Your task to perform on an android device: turn on the 12-hour format for clock Image 0: 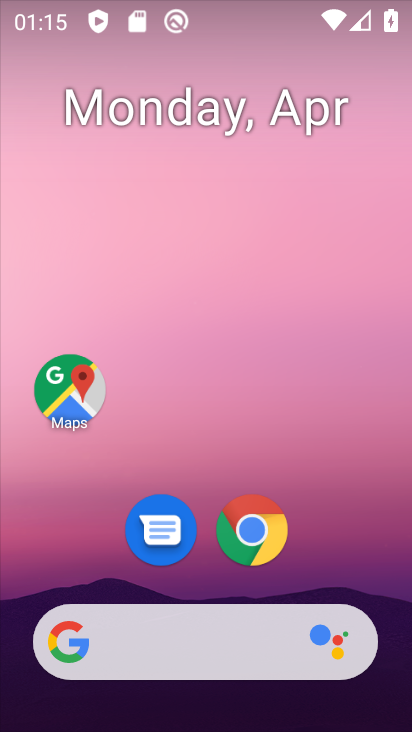
Step 0: drag from (338, 539) to (278, 27)
Your task to perform on an android device: turn on the 12-hour format for clock Image 1: 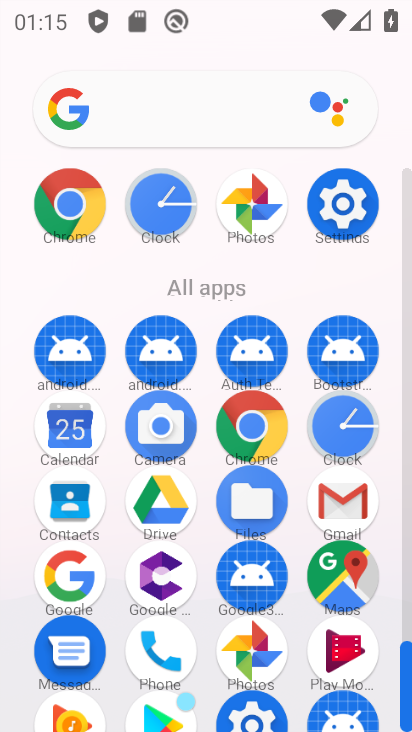
Step 1: click (346, 439)
Your task to perform on an android device: turn on the 12-hour format for clock Image 2: 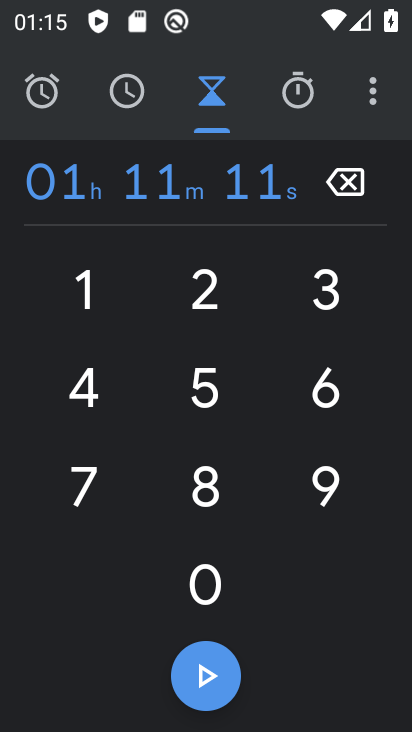
Step 2: click (377, 89)
Your task to perform on an android device: turn on the 12-hour format for clock Image 3: 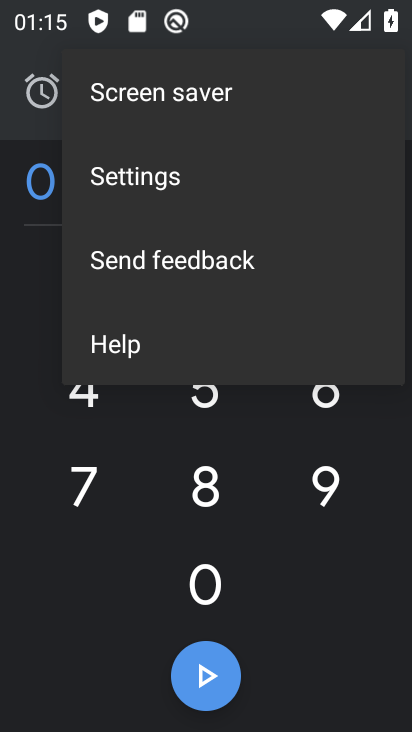
Step 3: click (160, 170)
Your task to perform on an android device: turn on the 12-hour format for clock Image 4: 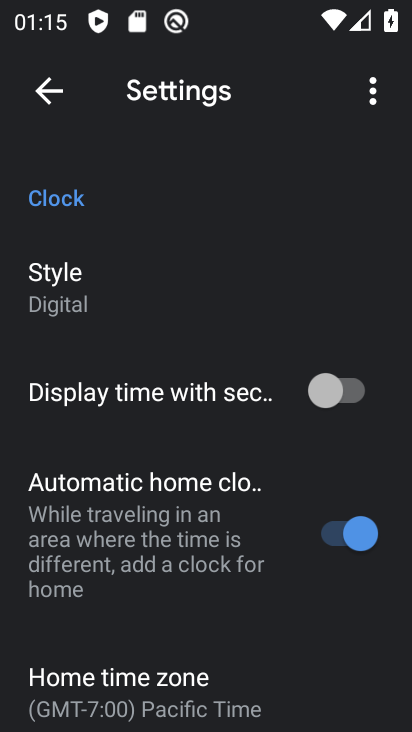
Step 4: drag from (197, 602) to (142, 297)
Your task to perform on an android device: turn on the 12-hour format for clock Image 5: 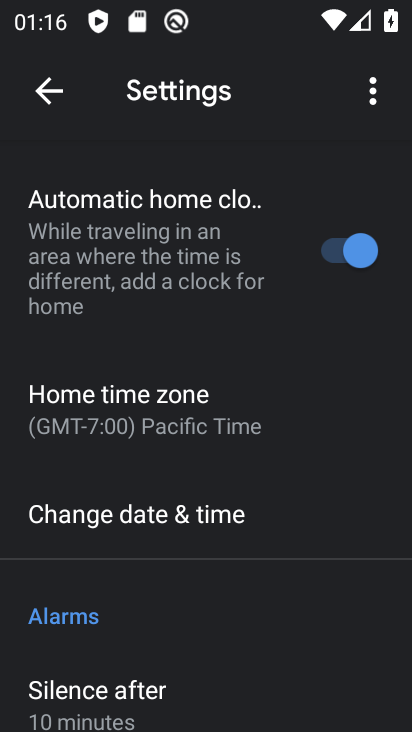
Step 5: click (205, 508)
Your task to perform on an android device: turn on the 12-hour format for clock Image 6: 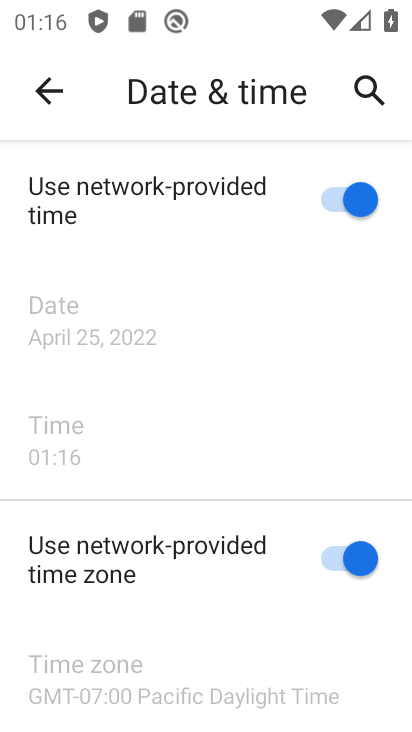
Step 6: drag from (210, 214) to (192, 154)
Your task to perform on an android device: turn on the 12-hour format for clock Image 7: 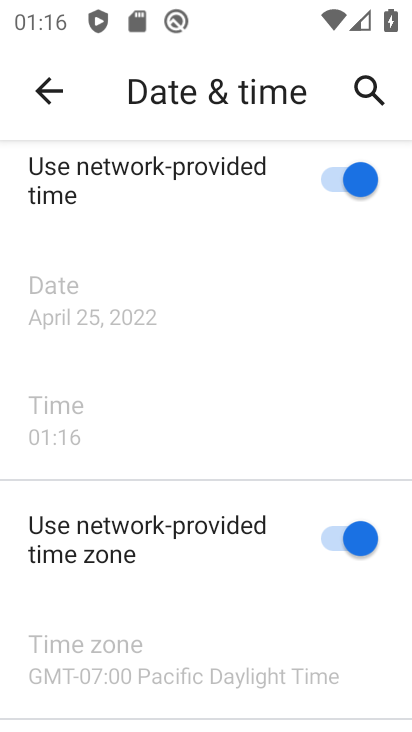
Step 7: drag from (228, 608) to (158, 265)
Your task to perform on an android device: turn on the 12-hour format for clock Image 8: 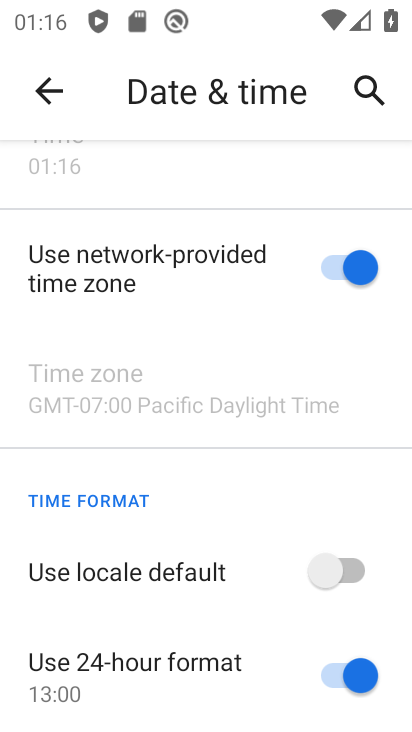
Step 8: drag from (211, 517) to (193, 326)
Your task to perform on an android device: turn on the 12-hour format for clock Image 9: 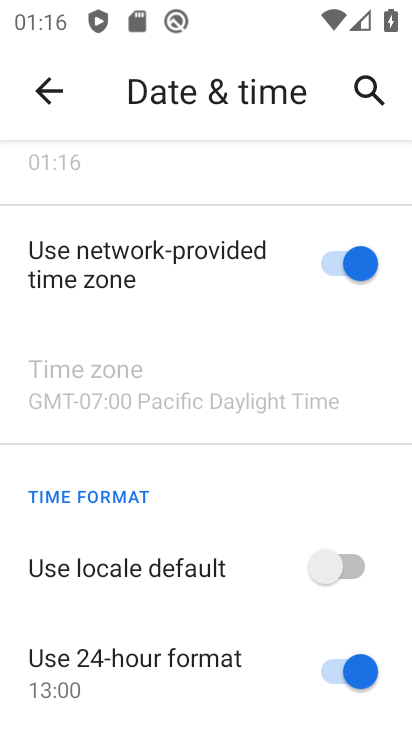
Step 9: click (329, 558)
Your task to perform on an android device: turn on the 12-hour format for clock Image 10: 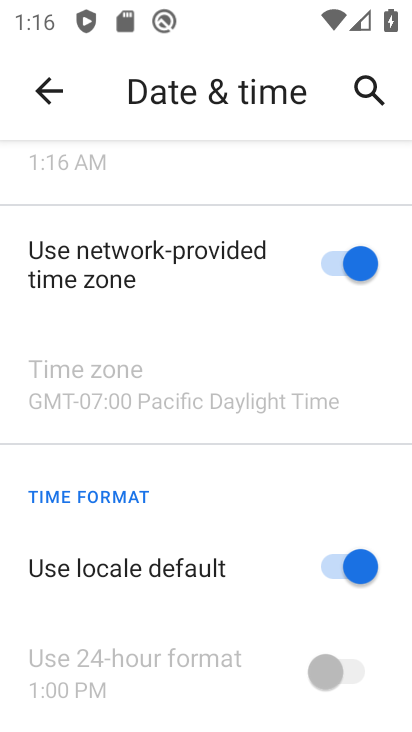
Step 10: task complete